Your task to perform on an android device: empty trash in google photos Image 0: 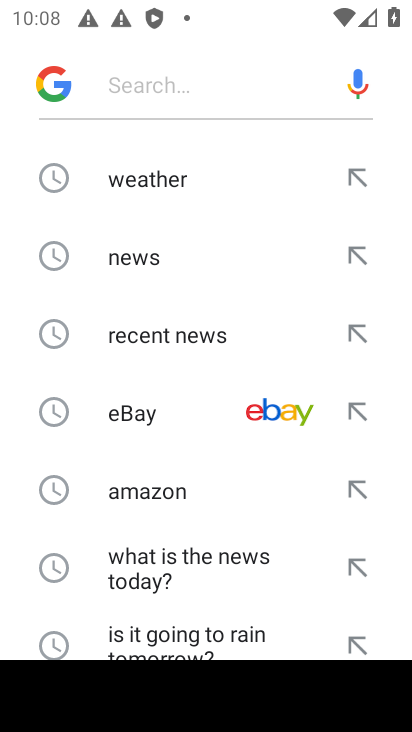
Step 0: press home button
Your task to perform on an android device: empty trash in google photos Image 1: 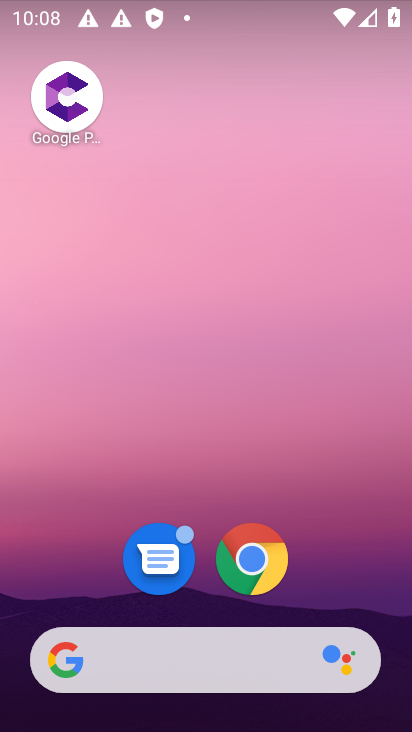
Step 1: drag from (212, 134) to (212, 89)
Your task to perform on an android device: empty trash in google photos Image 2: 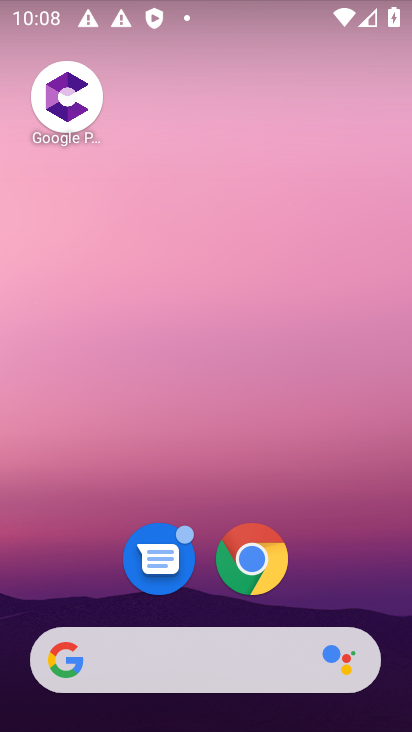
Step 2: click (212, 89)
Your task to perform on an android device: empty trash in google photos Image 3: 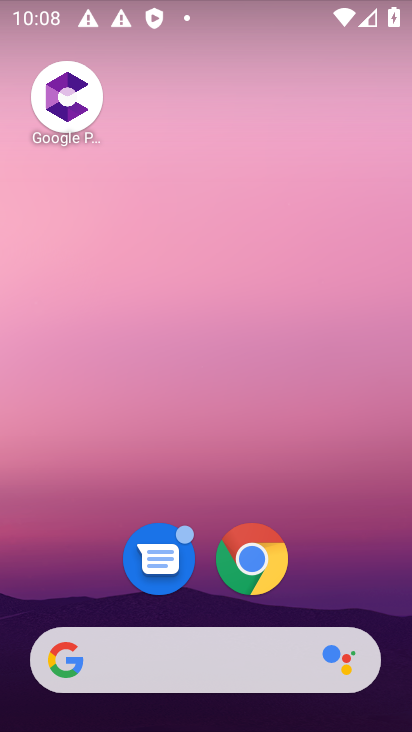
Step 3: drag from (208, 554) to (223, 50)
Your task to perform on an android device: empty trash in google photos Image 4: 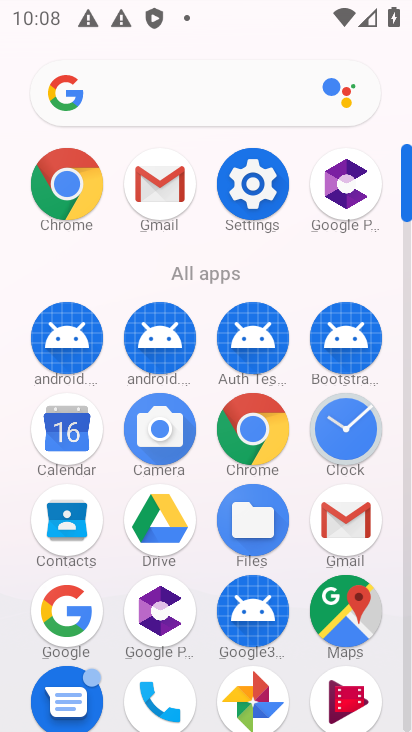
Step 4: click (259, 692)
Your task to perform on an android device: empty trash in google photos Image 5: 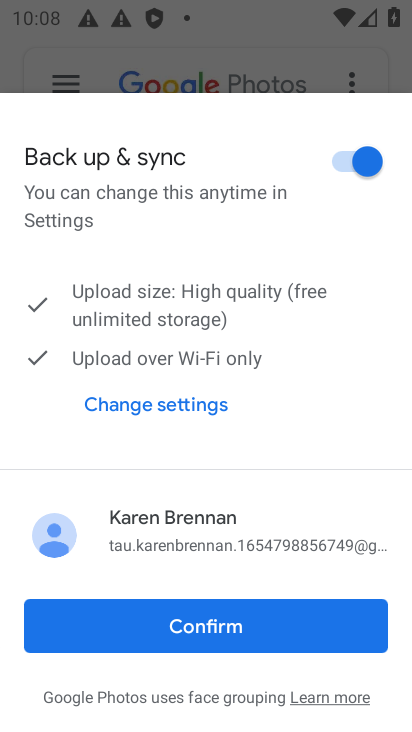
Step 5: click (200, 617)
Your task to perform on an android device: empty trash in google photos Image 6: 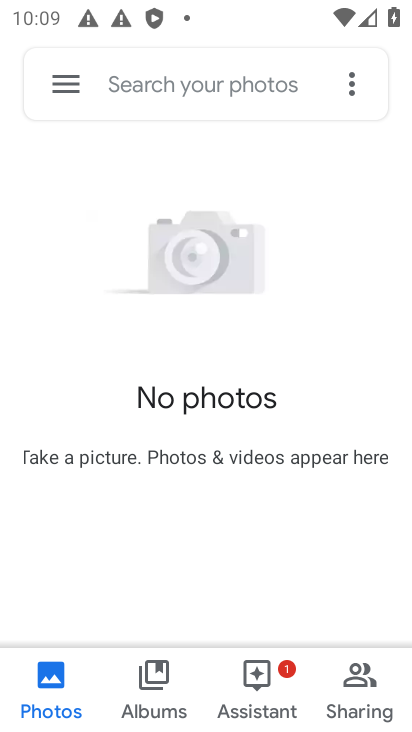
Step 6: click (70, 73)
Your task to perform on an android device: empty trash in google photos Image 7: 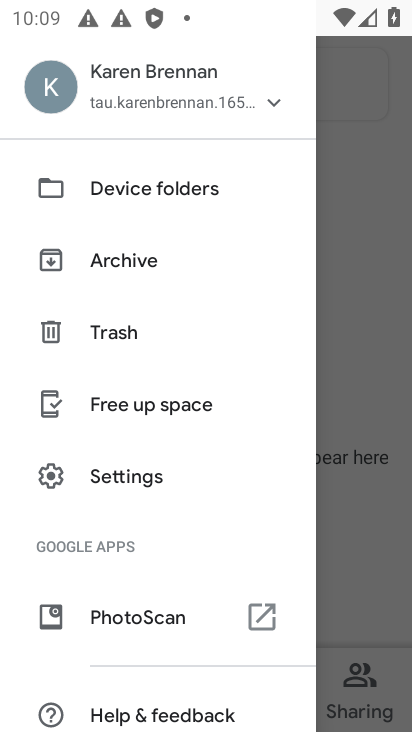
Step 7: click (95, 342)
Your task to perform on an android device: empty trash in google photos Image 8: 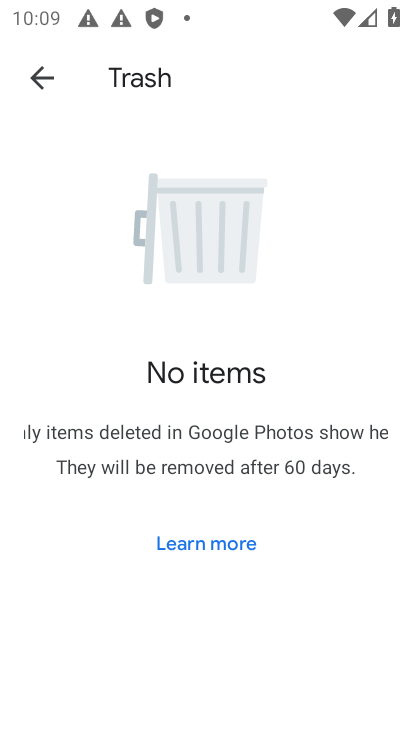
Step 8: task complete